Your task to perform on an android device: What's the weather? Image 0: 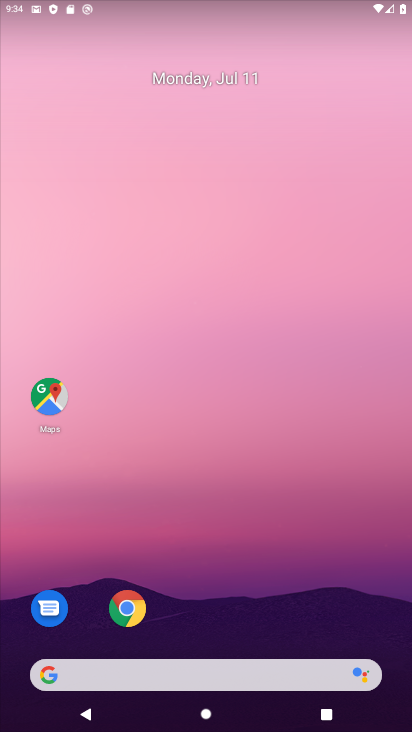
Step 0: drag from (175, 555) to (150, 393)
Your task to perform on an android device: What's the weather? Image 1: 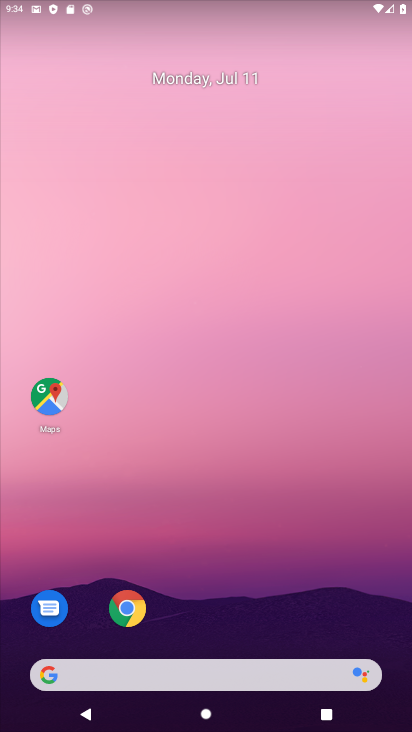
Step 1: drag from (250, 487) to (219, 244)
Your task to perform on an android device: What's the weather? Image 2: 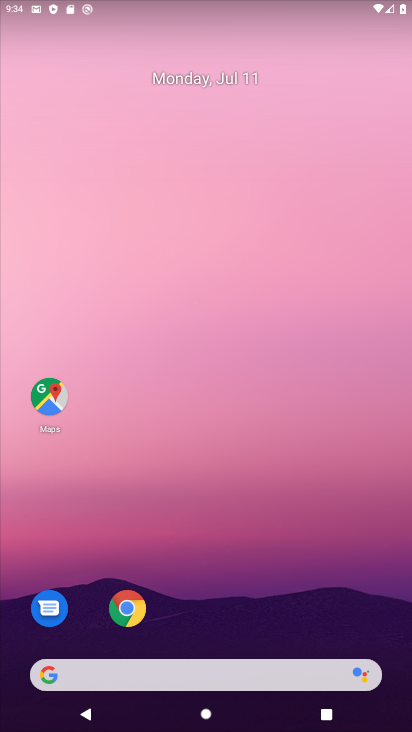
Step 2: drag from (215, 716) to (201, 156)
Your task to perform on an android device: What's the weather? Image 3: 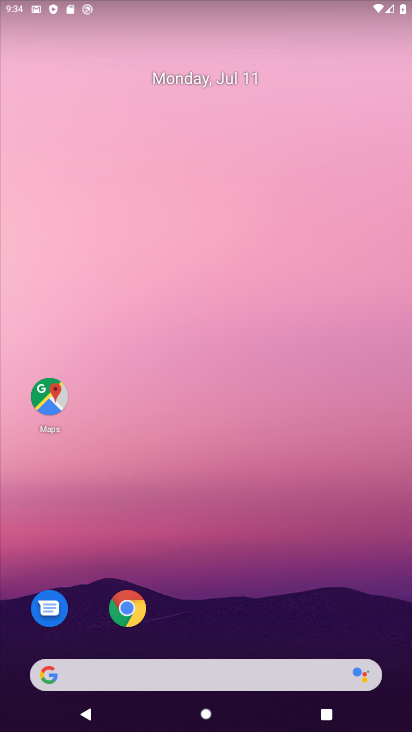
Step 3: drag from (223, 652) to (152, 208)
Your task to perform on an android device: What's the weather? Image 4: 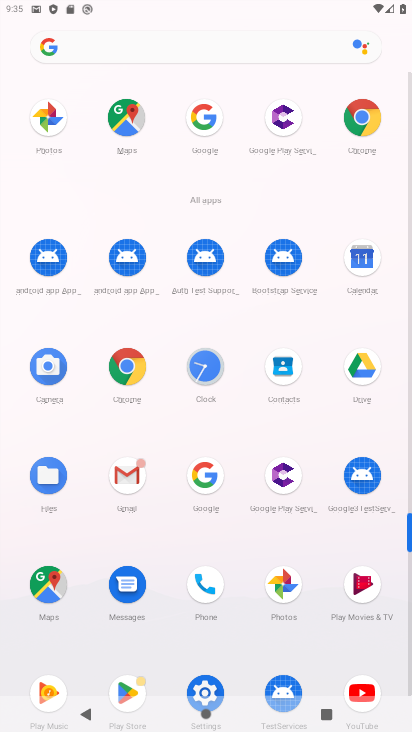
Step 4: click (365, 117)
Your task to perform on an android device: What's the weather? Image 5: 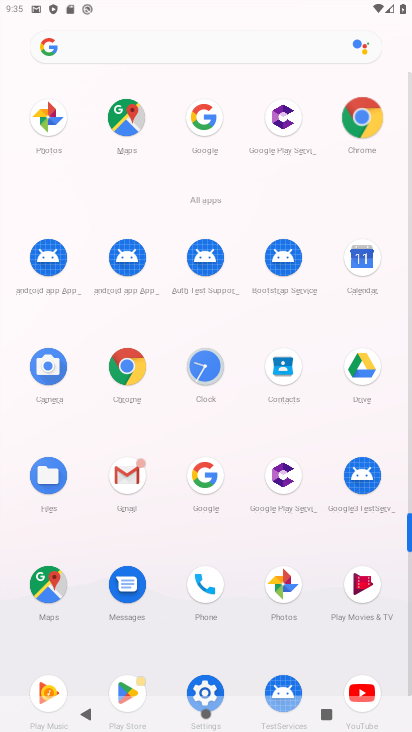
Step 5: click (366, 117)
Your task to perform on an android device: What's the weather? Image 6: 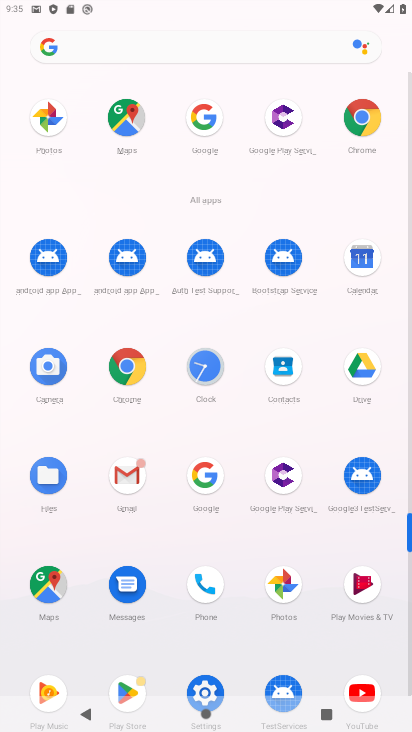
Step 6: click (361, 116)
Your task to perform on an android device: What's the weather? Image 7: 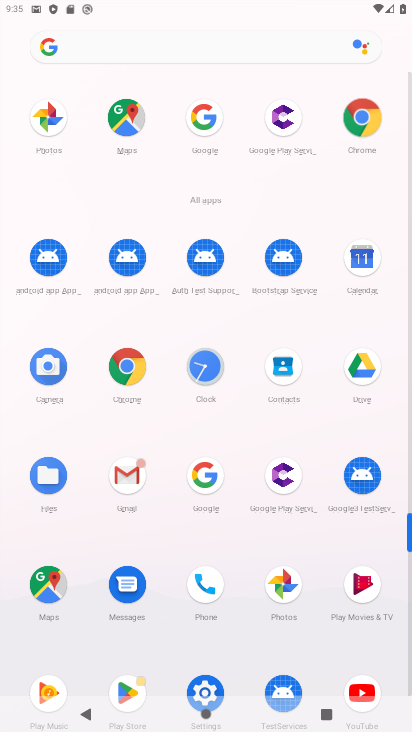
Step 7: click (361, 116)
Your task to perform on an android device: What's the weather? Image 8: 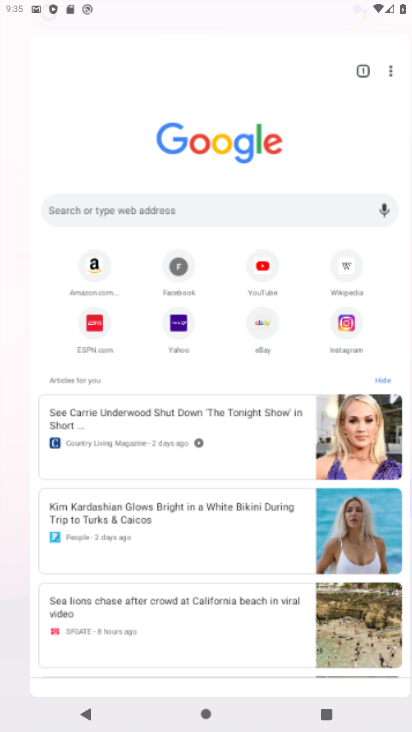
Step 8: click (361, 115)
Your task to perform on an android device: What's the weather? Image 9: 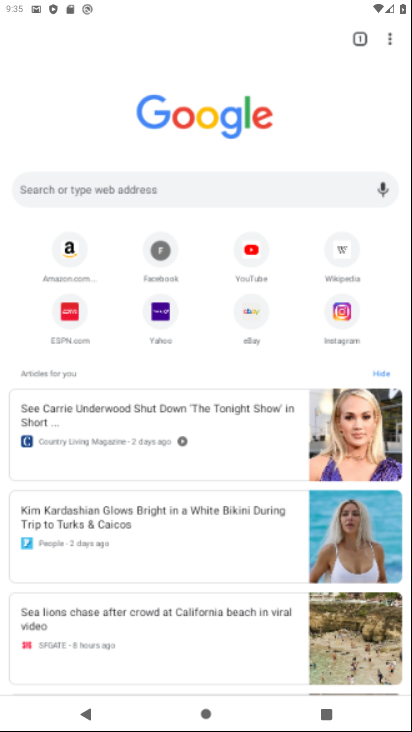
Step 9: click (361, 115)
Your task to perform on an android device: What's the weather? Image 10: 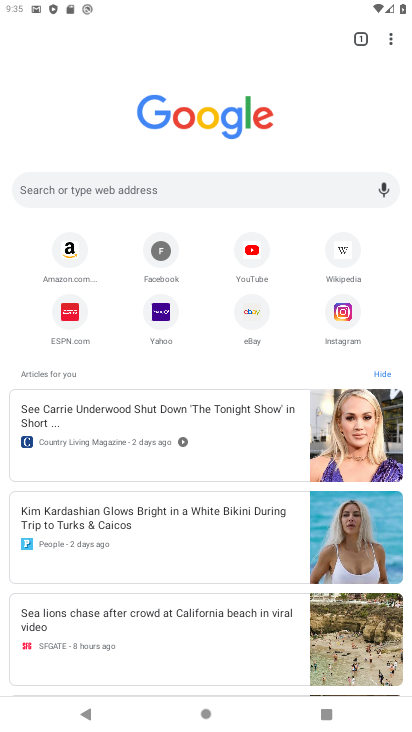
Step 10: click (88, 200)
Your task to perform on an android device: What's the weather? Image 11: 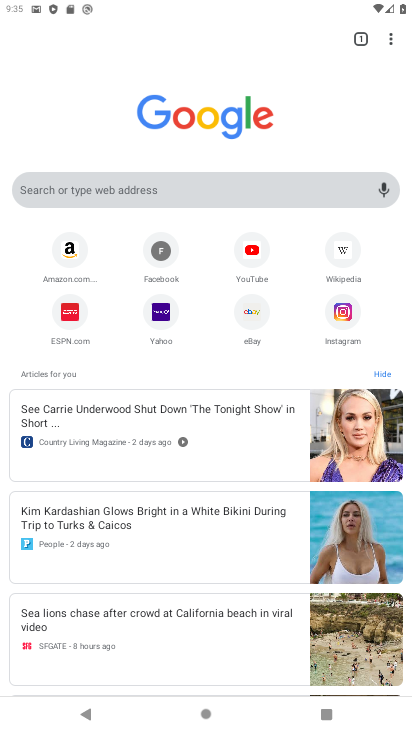
Step 11: click (43, 184)
Your task to perform on an android device: What's the weather? Image 12: 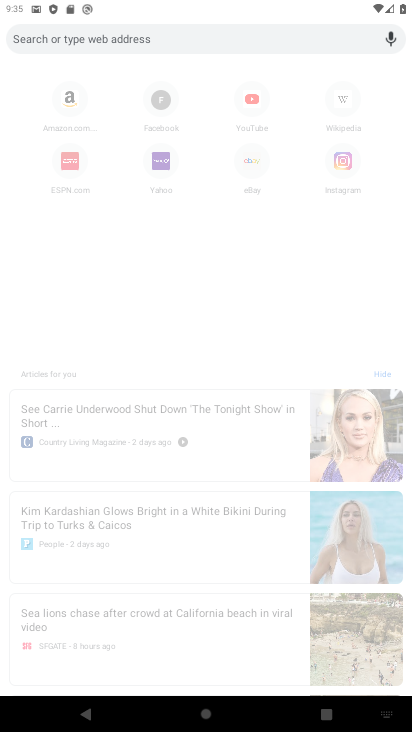
Step 12: click (43, 184)
Your task to perform on an android device: What's the weather? Image 13: 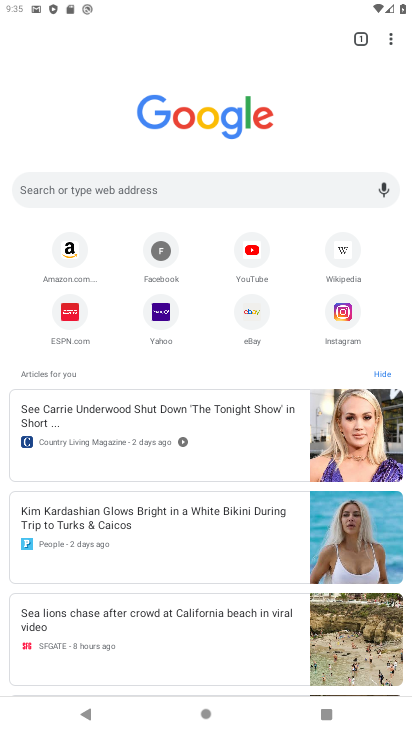
Step 13: click (89, 191)
Your task to perform on an android device: What's the weather? Image 14: 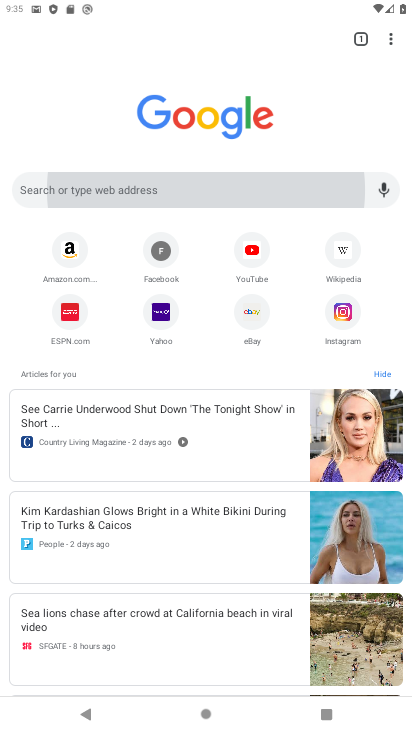
Step 14: click (86, 189)
Your task to perform on an android device: What's the weather? Image 15: 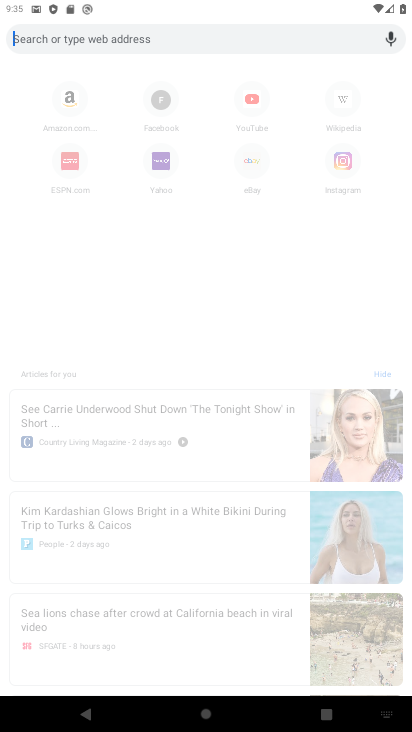
Step 15: type "weather"
Your task to perform on an android device: What's the weather? Image 16: 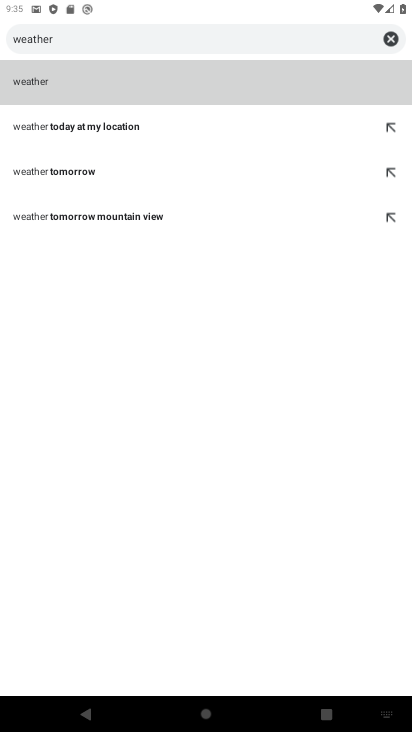
Step 16: click (96, 128)
Your task to perform on an android device: What's the weather? Image 17: 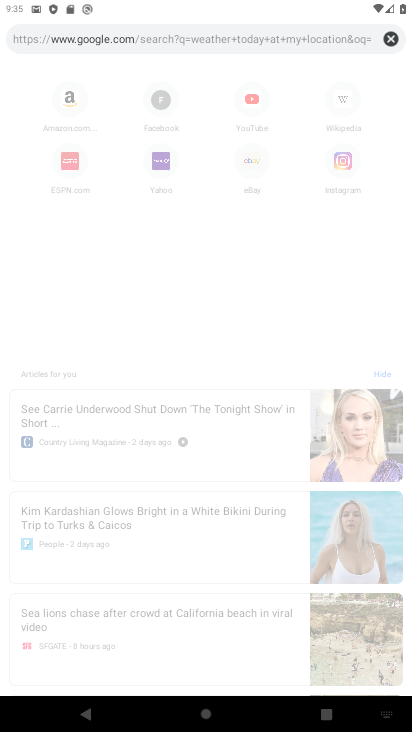
Step 17: click (93, 125)
Your task to perform on an android device: What's the weather? Image 18: 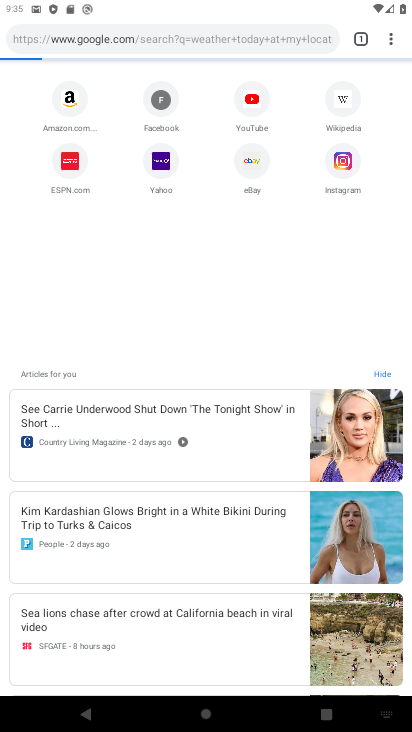
Step 18: click (93, 125)
Your task to perform on an android device: What's the weather? Image 19: 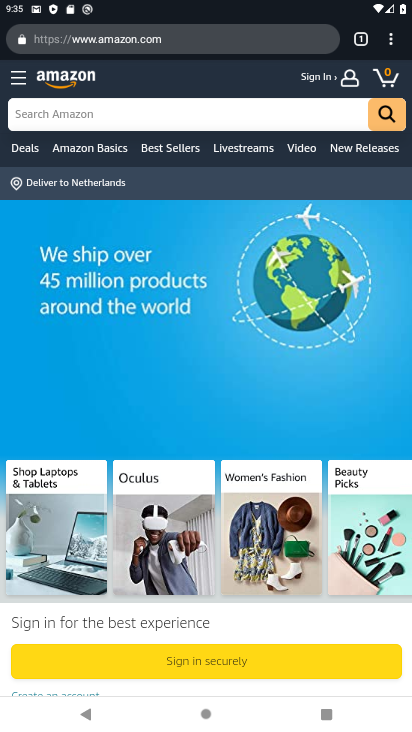
Step 19: task complete